Your task to perform on an android device: delete the emails in spam in the gmail app Image 0: 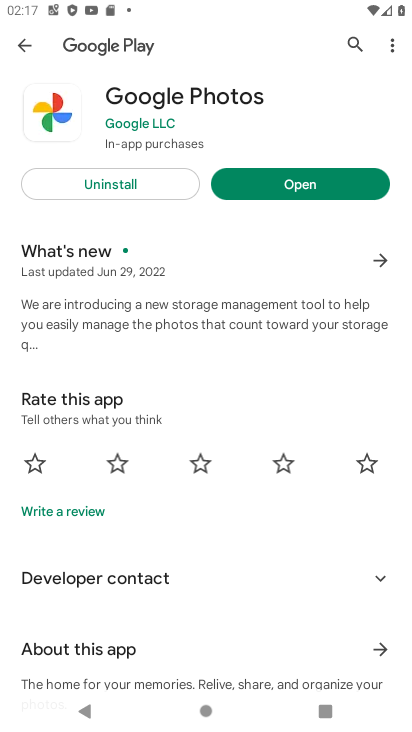
Step 0: press home button
Your task to perform on an android device: delete the emails in spam in the gmail app Image 1: 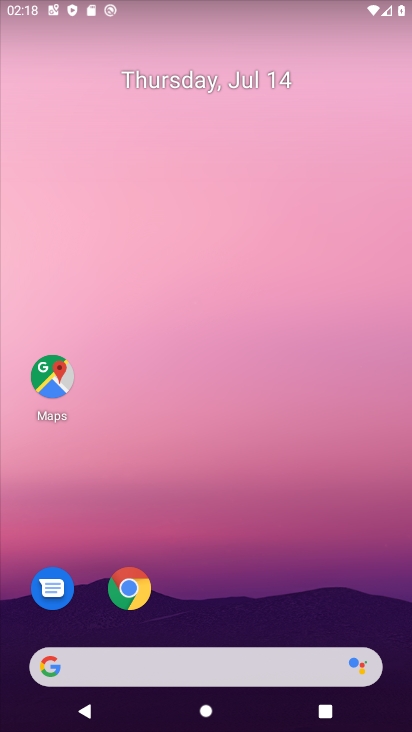
Step 1: drag from (156, 701) to (109, 15)
Your task to perform on an android device: delete the emails in spam in the gmail app Image 2: 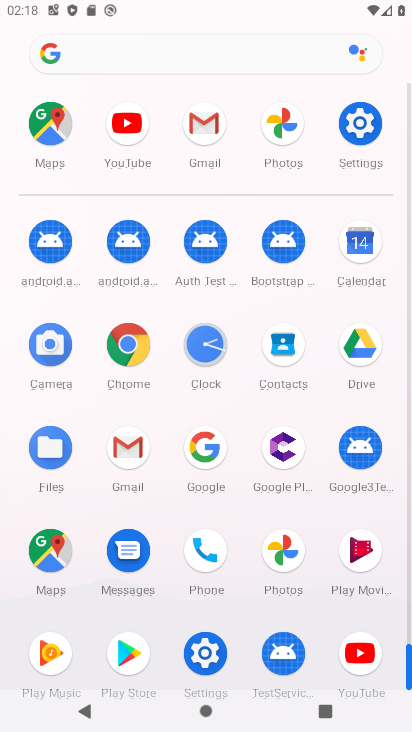
Step 2: click (207, 129)
Your task to perform on an android device: delete the emails in spam in the gmail app Image 3: 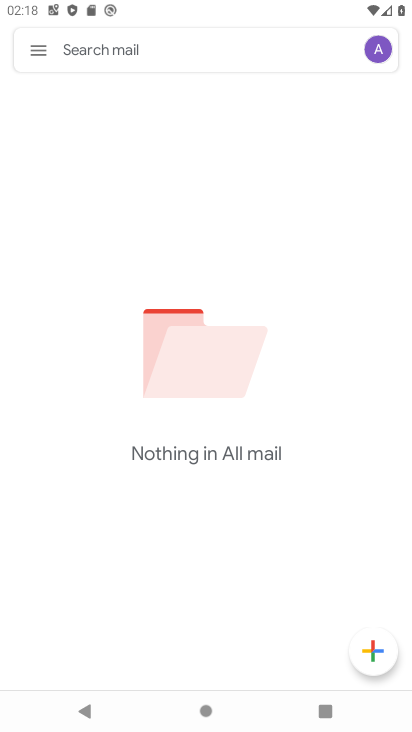
Step 3: click (37, 49)
Your task to perform on an android device: delete the emails in spam in the gmail app Image 4: 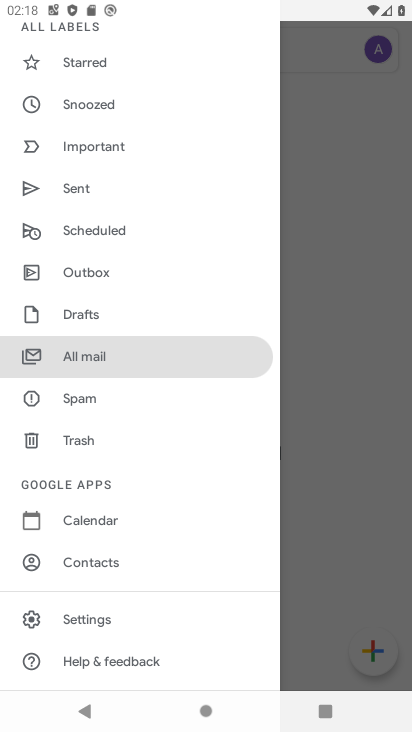
Step 4: click (106, 396)
Your task to perform on an android device: delete the emails in spam in the gmail app Image 5: 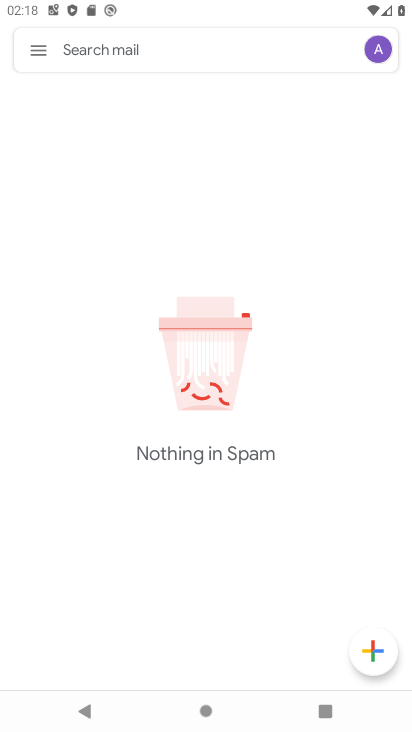
Step 5: task complete